Your task to perform on an android device: check google app version Image 0: 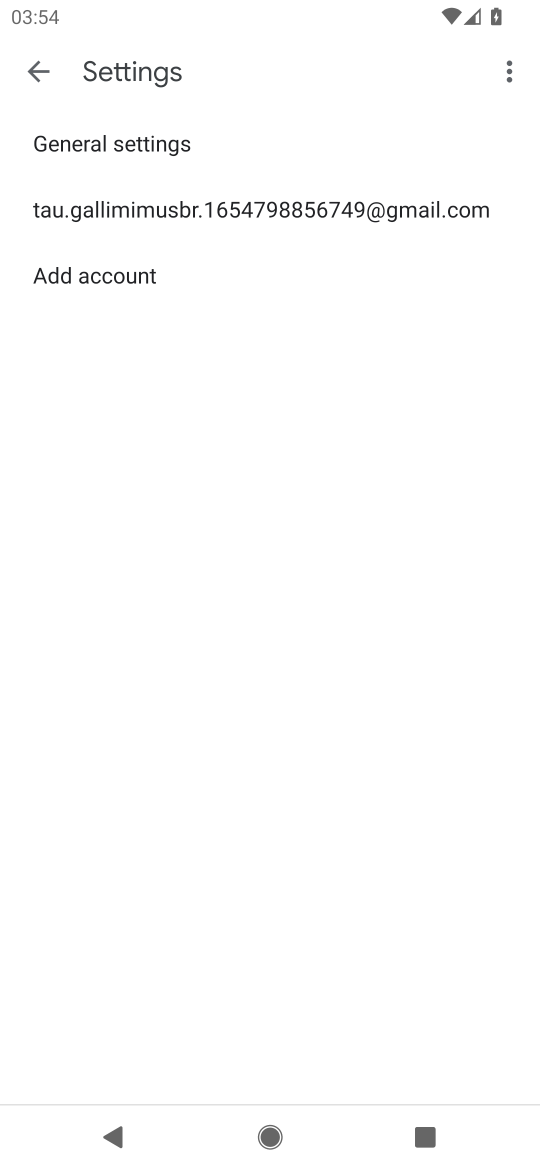
Step 0: press back button
Your task to perform on an android device: check google app version Image 1: 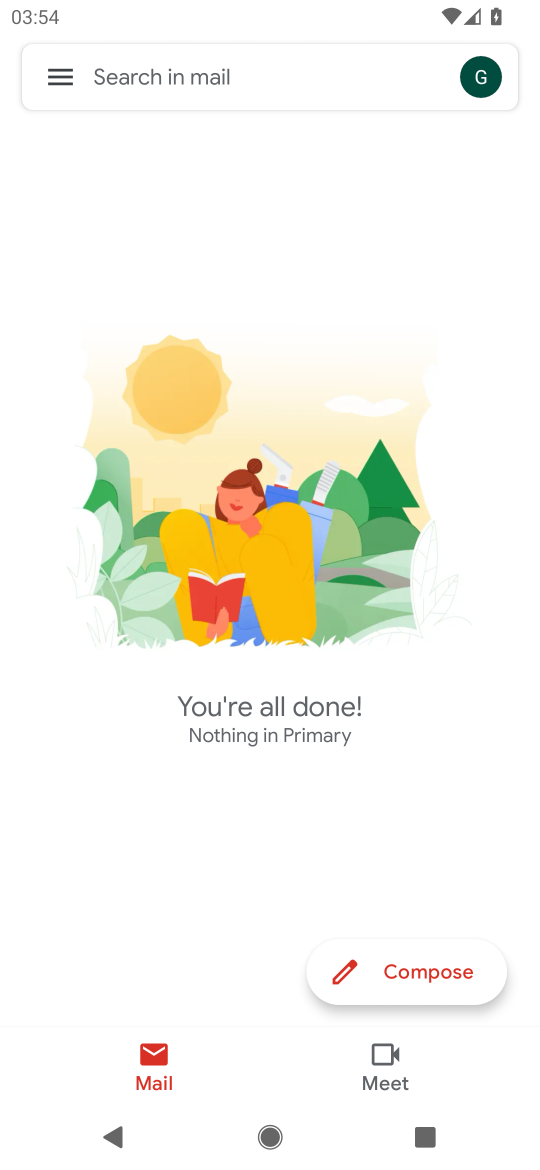
Step 1: press back button
Your task to perform on an android device: check google app version Image 2: 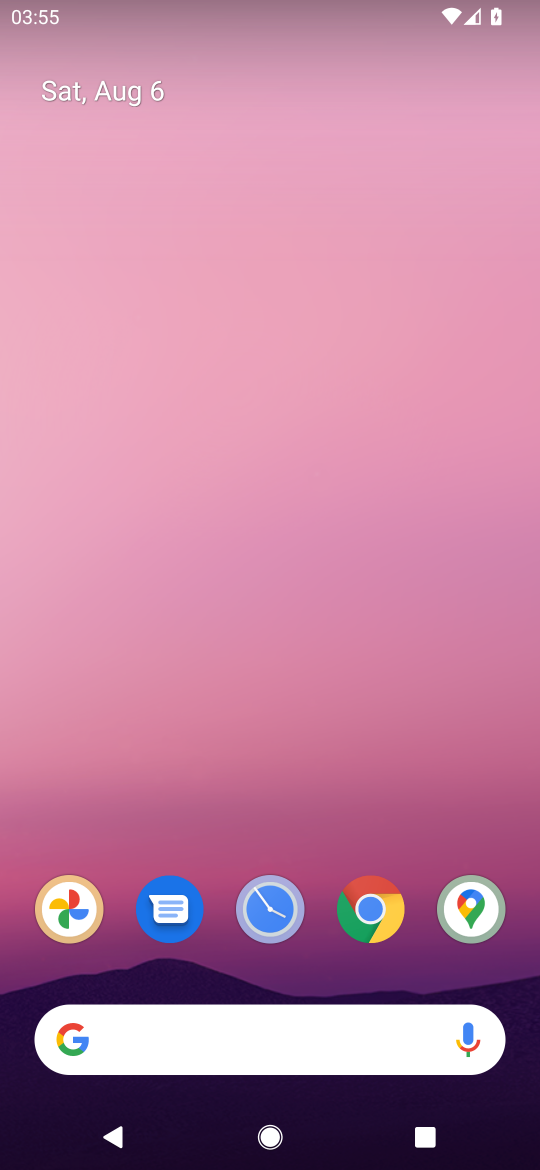
Step 2: drag from (247, 817) to (473, 9)
Your task to perform on an android device: check google app version Image 3: 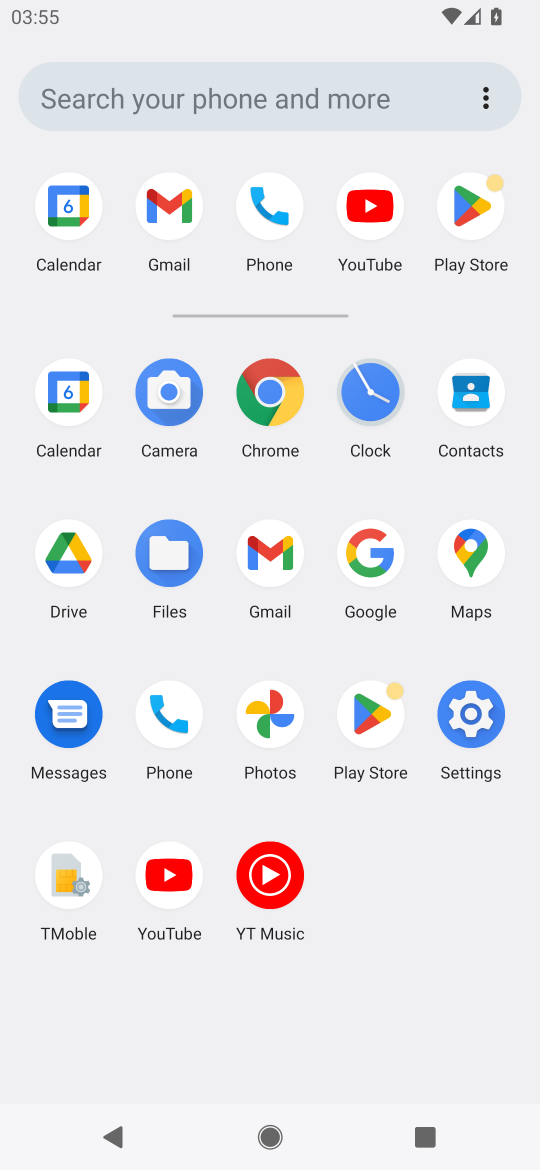
Step 3: click (357, 552)
Your task to perform on an android device: check google app version Image 4: 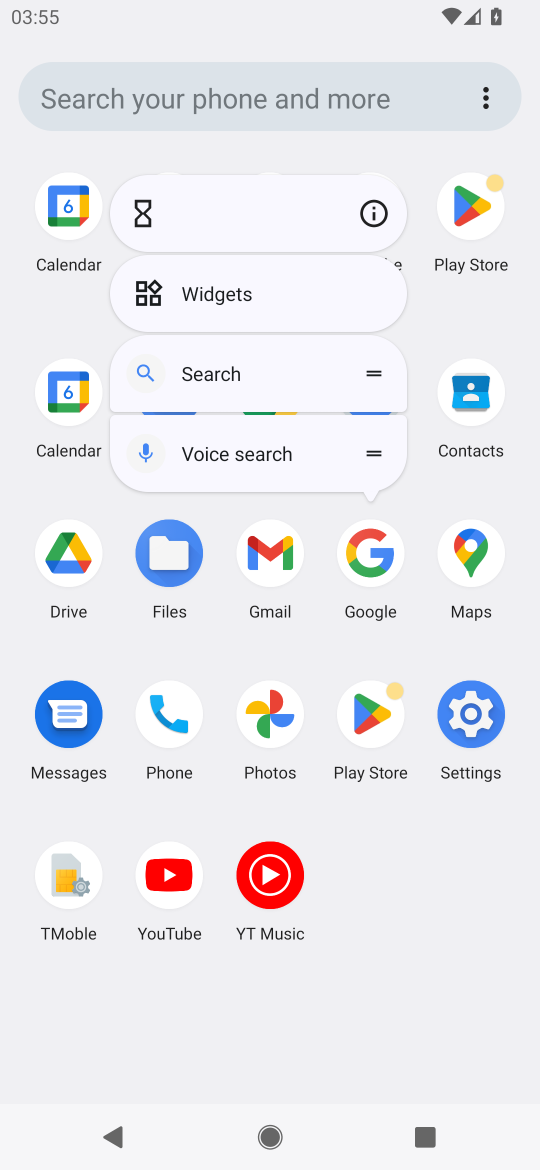
Step 4: click (374, 213)
Your task to perform on an android device: check google app version Image 5: 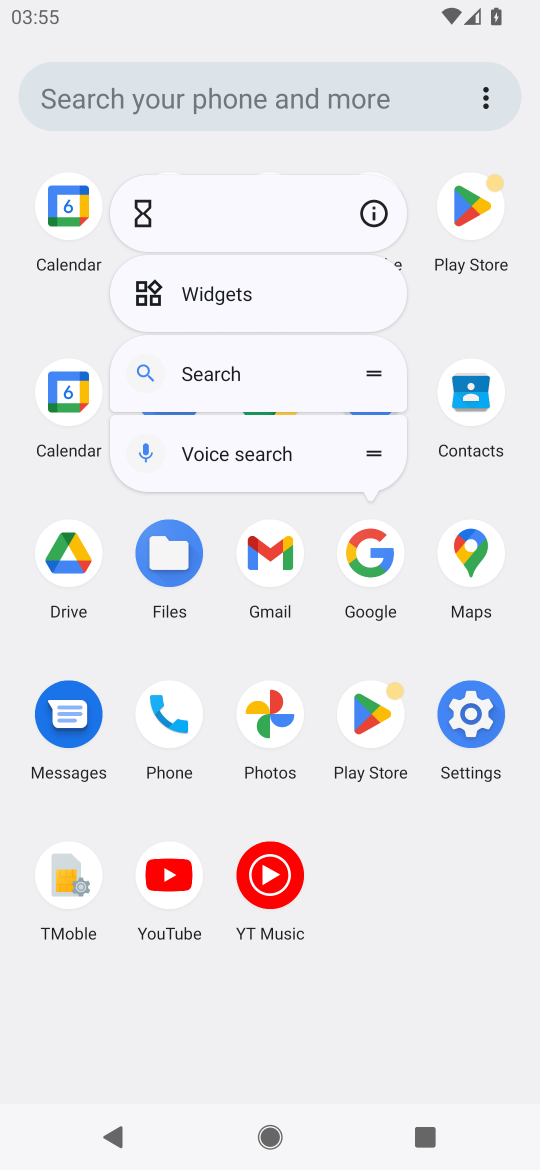
Step 5: click (382, 214)
Your task to perform on an android device: check google app version Image 6: 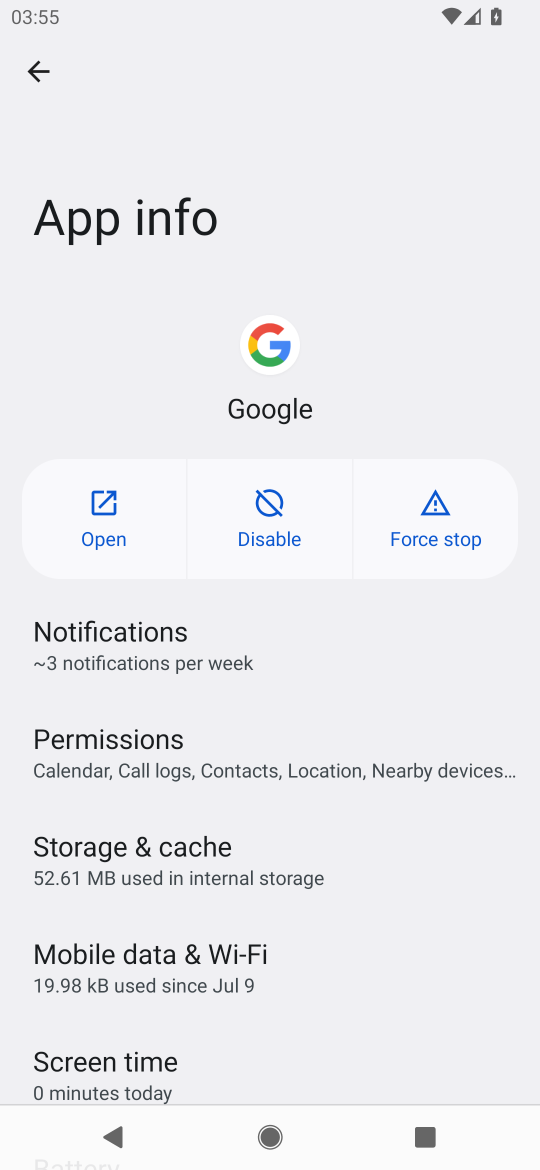
Step 6: task complete